Your task to perform on an android device: Search for vegetarian restaurants on Maps Image 0: 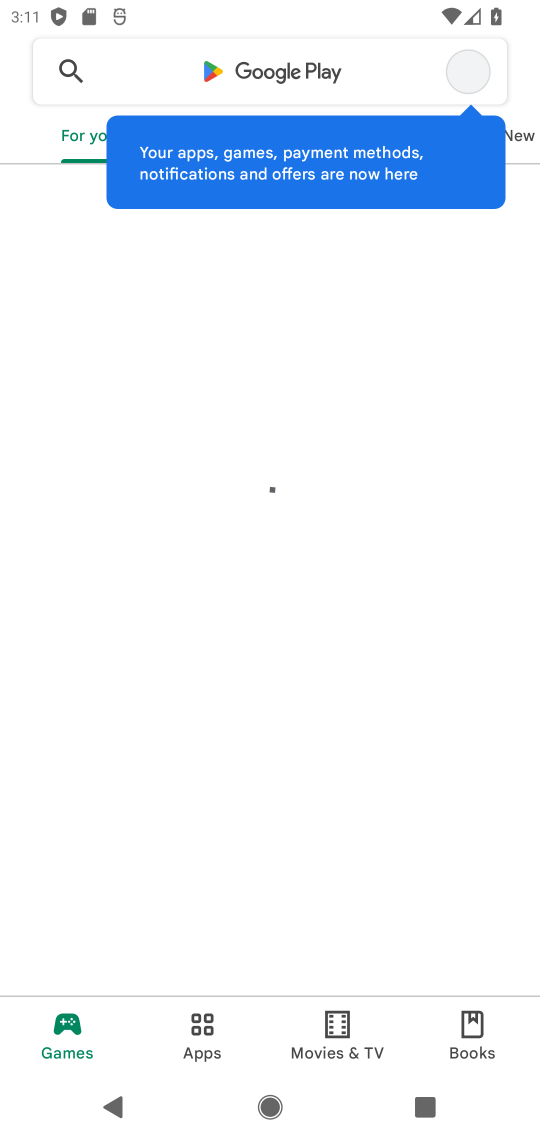
Step 0: press home button
Your task to perform on an android device: Search for vegetarian restaurants on Maps Image 1: 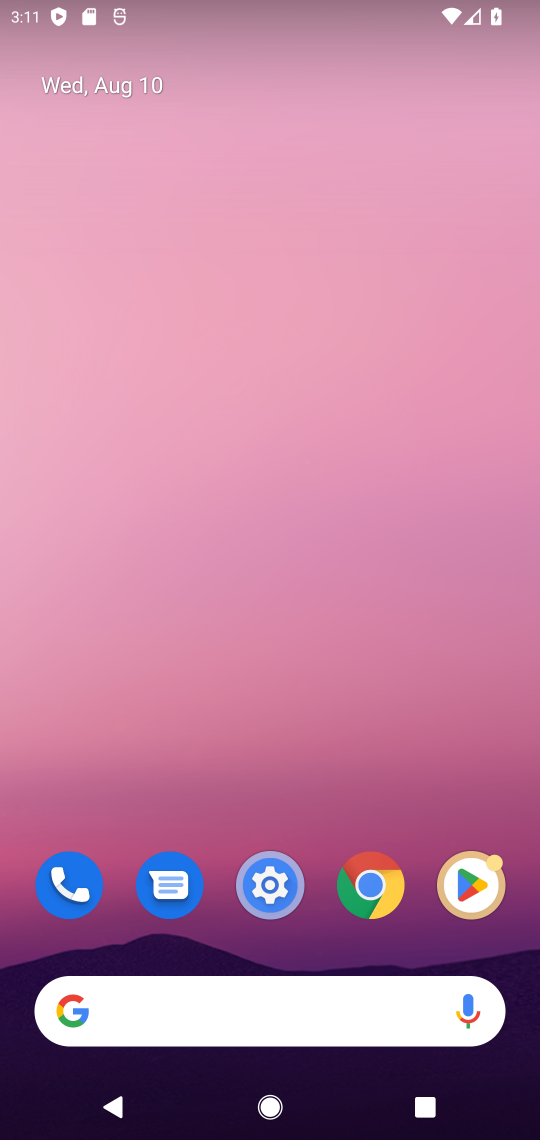
Step 1: drag from (297, 838) to (217, 7)
Your task to perform on an android device: Search for vegetarian restaurants on Maps Image 2: 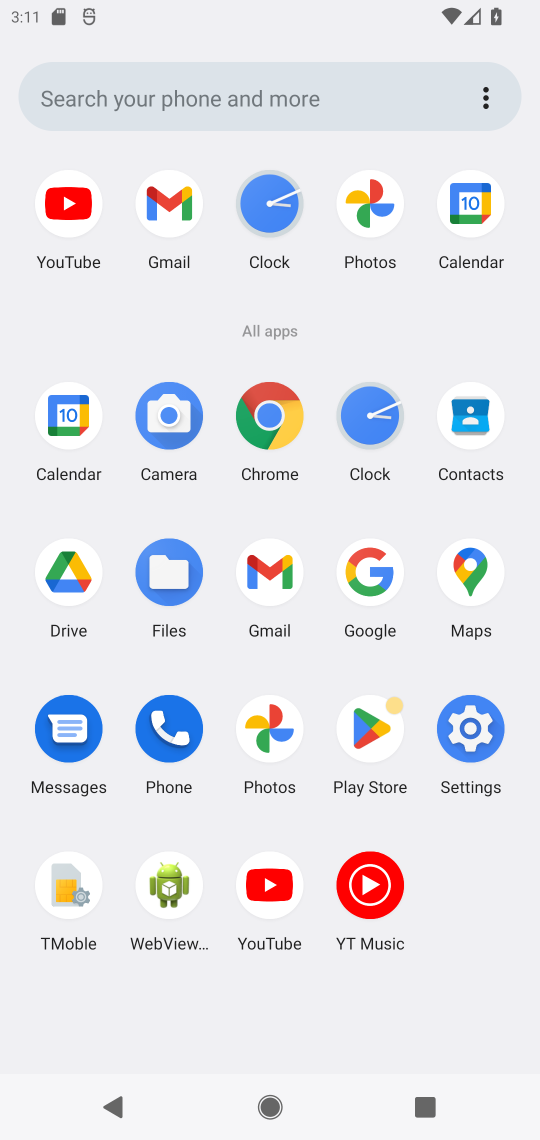
Step 2: click (464, 581)
Your task to perform on an android device: Search for vegetarian restaurants on Maps Image 3: 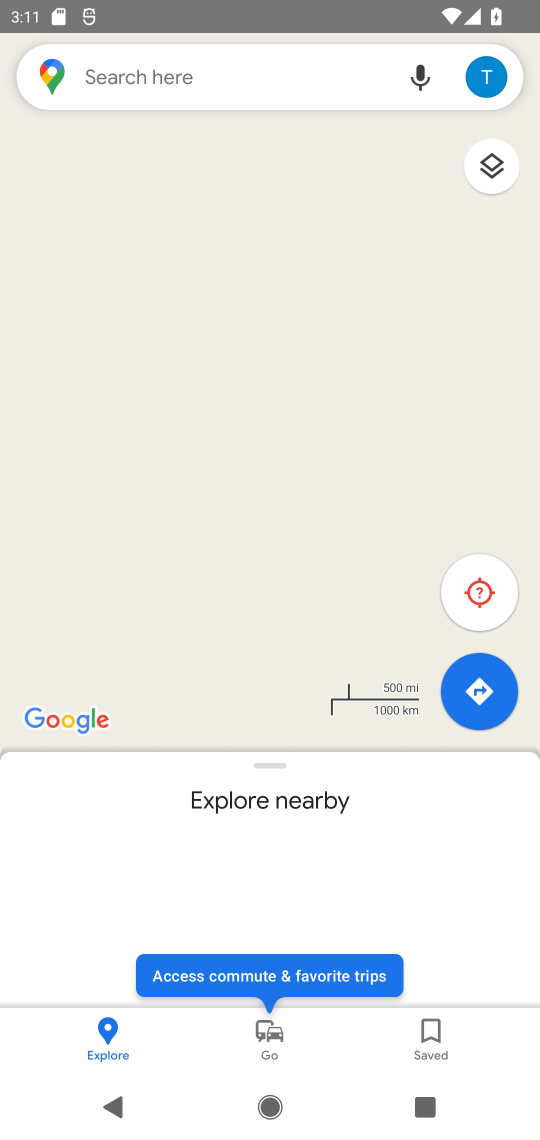
Step 3: click (184, 74)
Your task to perform on an android device: Search for vegetarian restaurants on Maps Image 4: 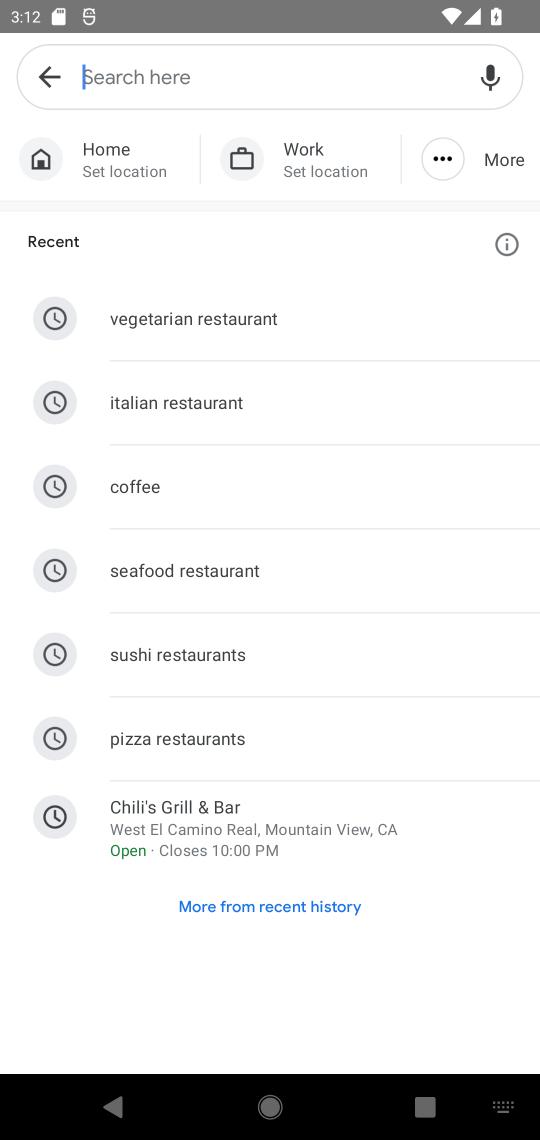
Step 4: click (210, 319)
Your task to perform on an android device: Search for vegetarian restaurants on Maps Image 5: 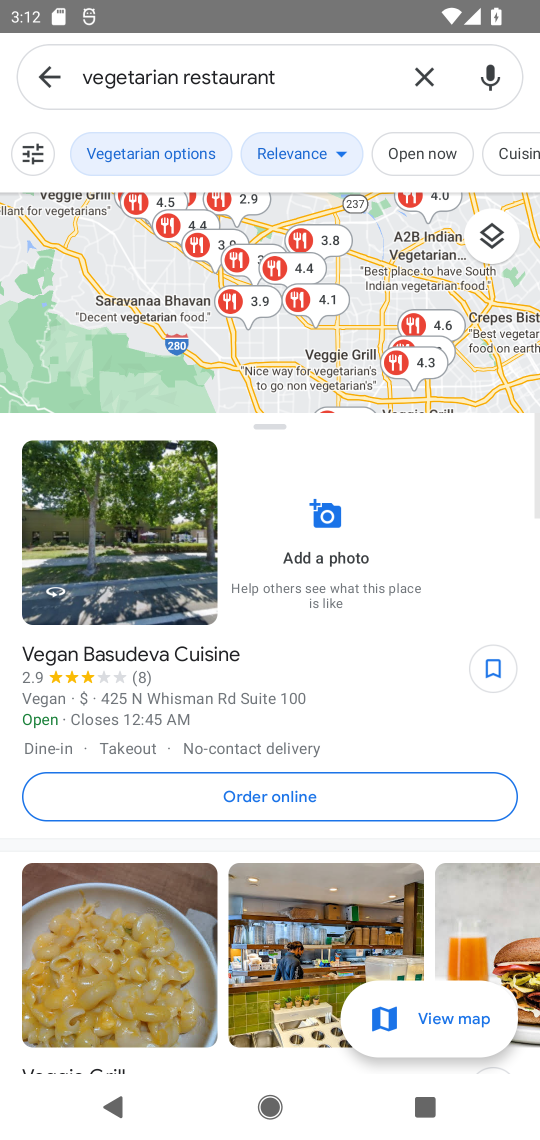
Step 5: task complete